Your task to perform on an android device: allow cookies in the chrome app Image 0: 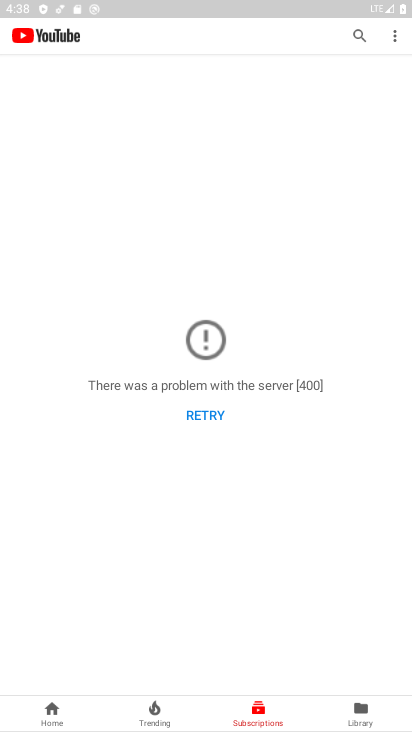
Step 0: press back button
Your task to perform on an android device: allow cookies in the chrome app Image 1: 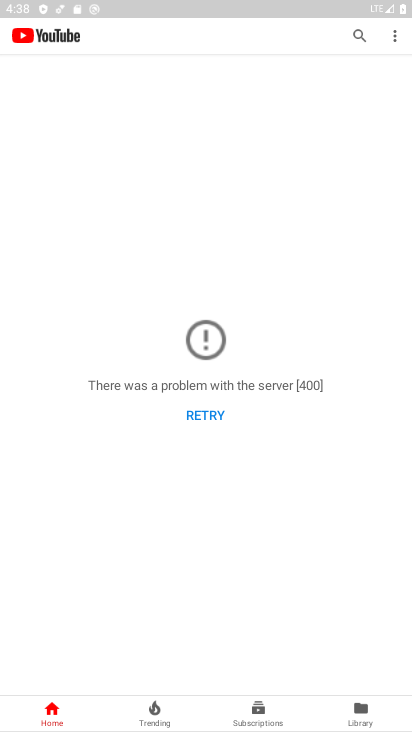
Step 1: press home button
Your task to perform on an android device: allow cookies in the chrome app Image 2: 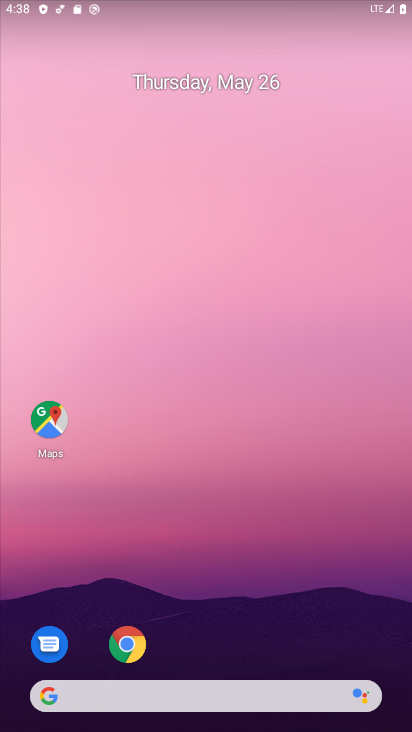
Step 2: drag from (250, 551) to (208, 37)
Your task to perform on an android device: allow cookies in the chrome app Image 3: 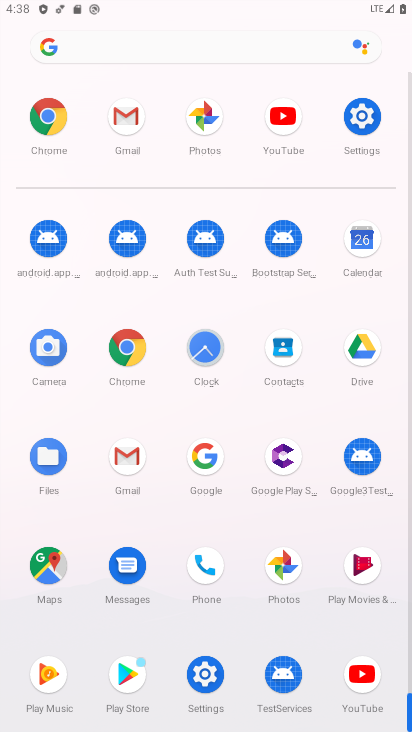
Step 3: click (126, 347)
Your task to perform on an android device: allow cookies in the chrome app Image 4: 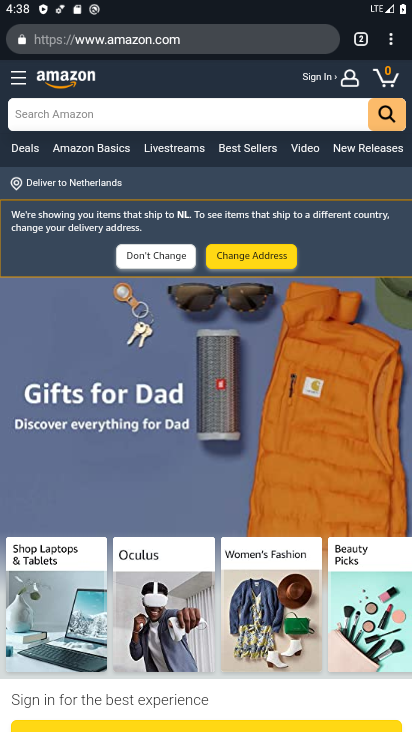
Step 4: drag from (390, 38) to (277, 428)
Your task to perform on an android device: allow cookies in the chrome app Image 5: 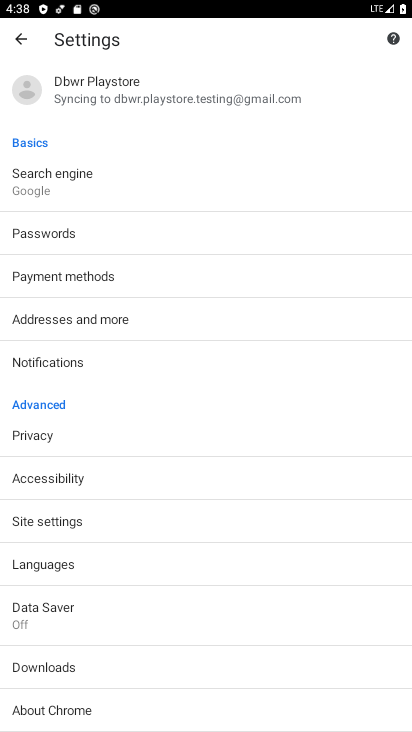
Step 5: click (74, 523)
Your task to perform on an android device: allow cookies in the chrome app Image 6: 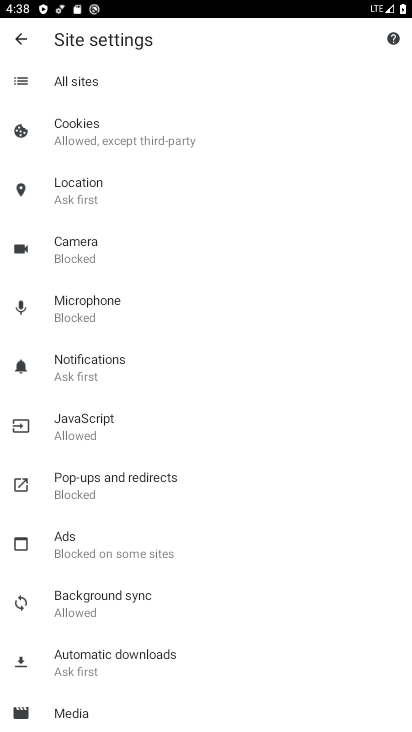
Step 6: drag from (206, 170) to (229, 516)
Your task to perform on an android device: allow cookies in the chrome app Image 7: 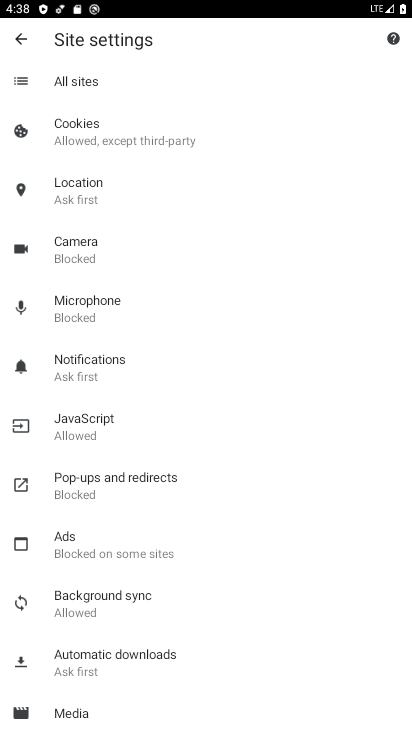
Step 7: drag from (233, 529) to (262, 98)
Your task to perform on an android device: allow cookies in the chrome app Image 8: 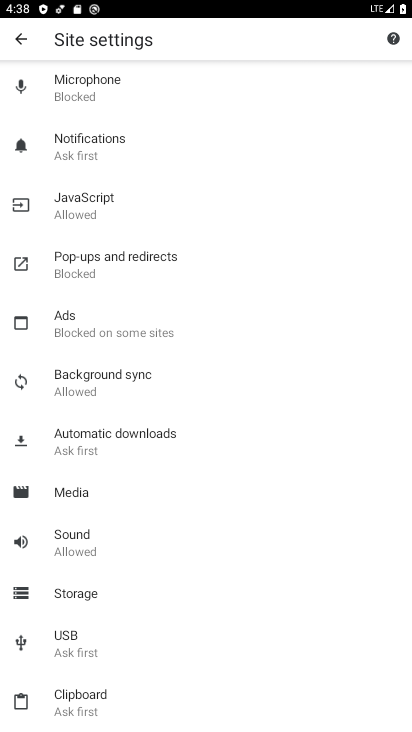
Step 8: drag from (224, 138) to (218, 507)
Your task to perform on an android device: allow cookies in the chrome app Image 9: 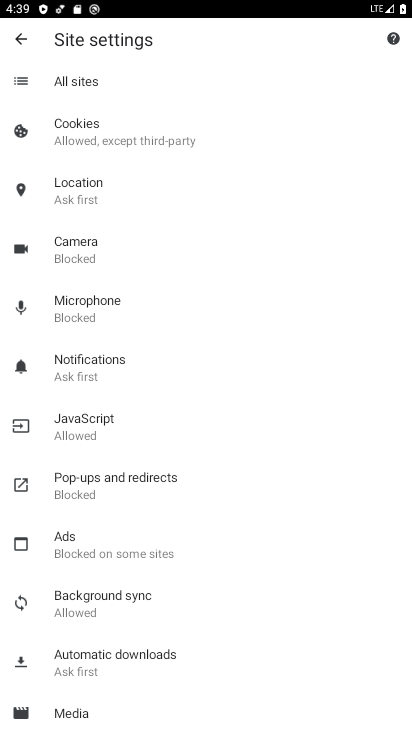
Step 9: click (137, 127)
Your task to perform on an android device: allow cookies in the chrome app Image 10: 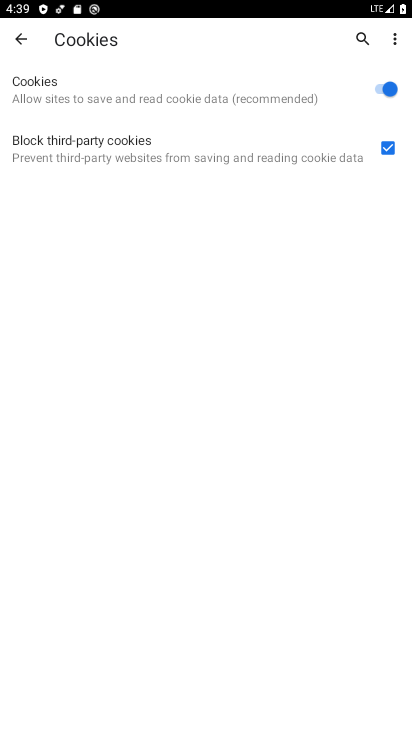
Step 10: task complete